Your task to perform on an android device: set the stopwatch Image 0: 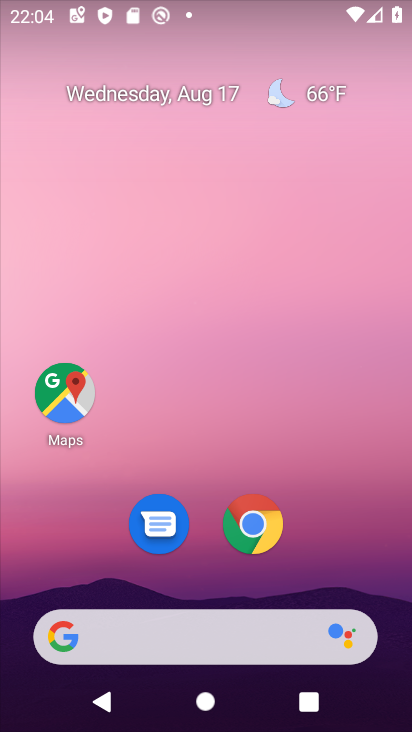
Step 0: drag from (362, 536) to (361, 27)
Your task to perform on an android device: set the stopwatch Image 1: 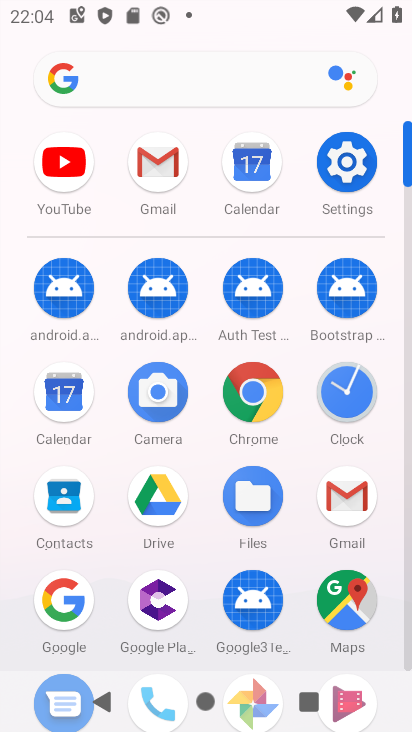
Step 1: click (355, 395)
Your task to perform on an android device: set the stopwatch Image 2: 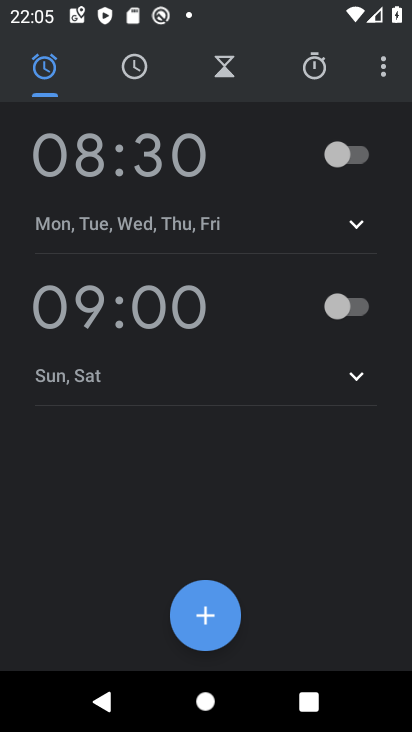
Step 2: click (319, 67)
Your task to perform on an android device: set the stopwatch Image 3: 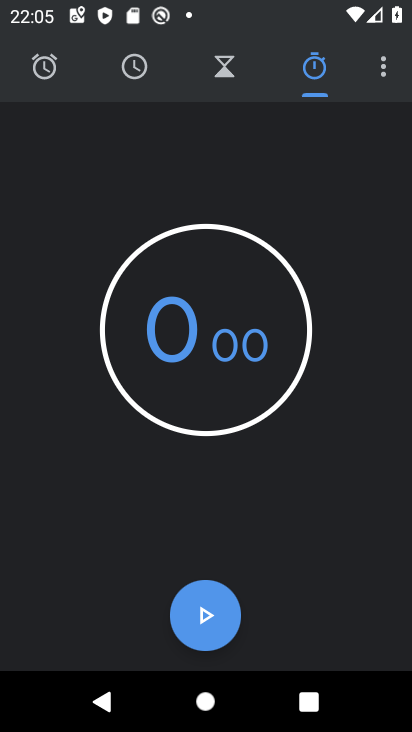
Step 3: task complete